Your task to perform on an android device: Open Wikipedia Image 0: 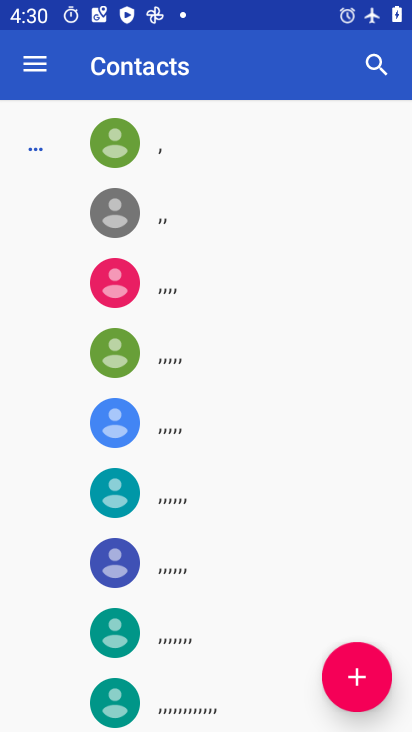
Step 0: press home button
Your task to perform on an android device: Open Wikipedia Image 1: 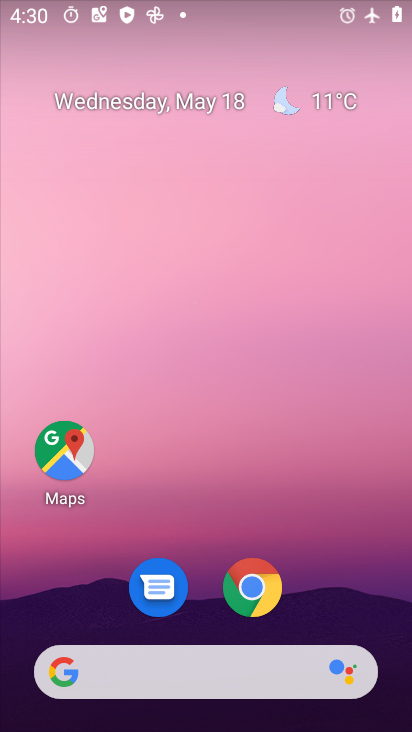
Step 1: drag from (230, 560) to (176, 210)
Your task to perform on an android device: Open Wikipedia Image 2: 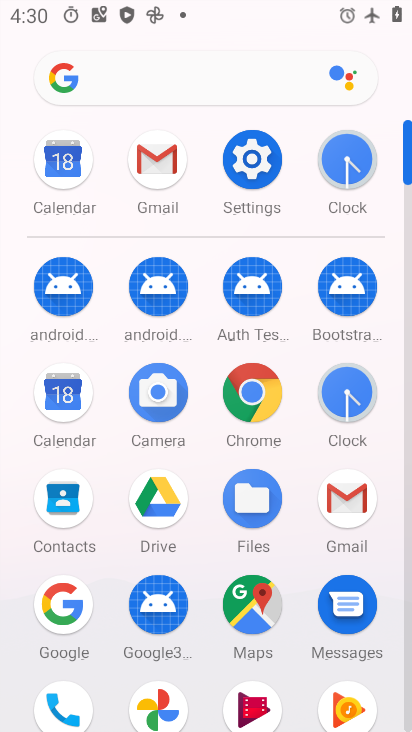
Step 2: click (272, 393)
Your task to perform on an android device: Open Wikipedia Image 3: 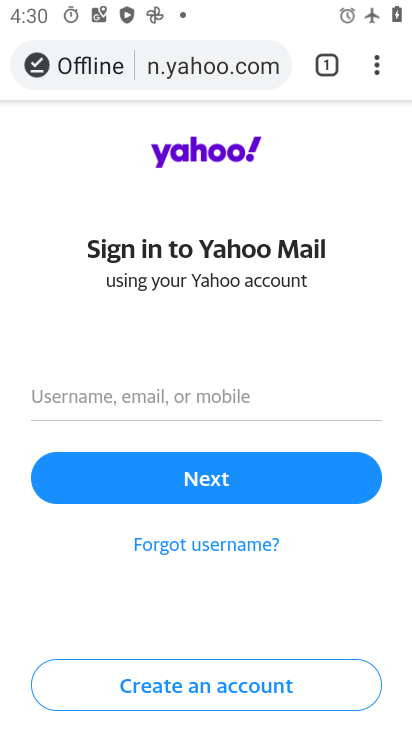
Step 3: click (216, 81)
Your task to perform on an android device: Open Wikipedia Image 4: 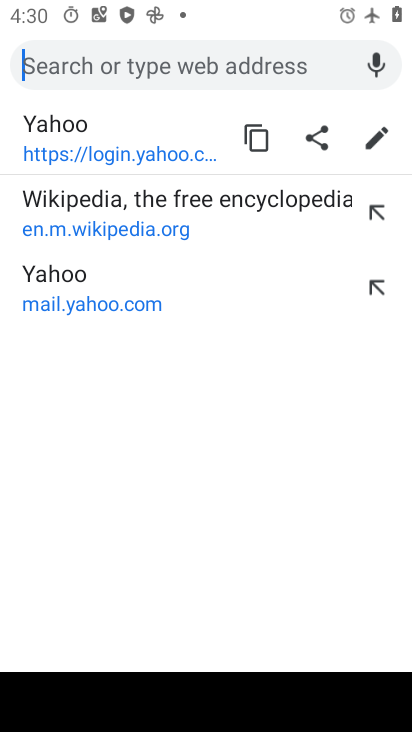
Step 4: click (171, 231)
Your task to perform on an android device: Open Wikipedia Image 5: 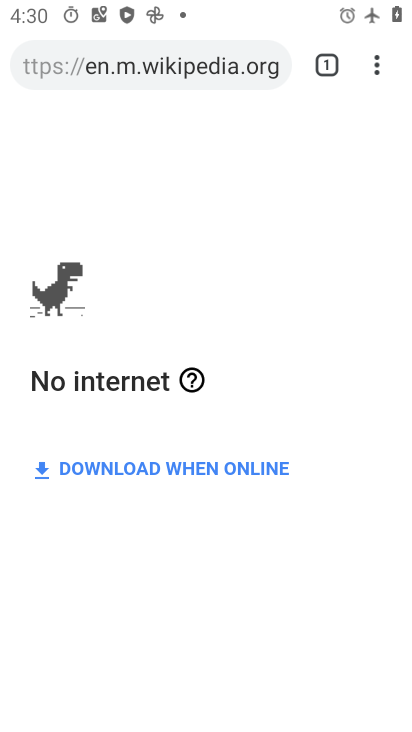
Step 5: task complete